Your task to perform on an android device: open app "Move to iOS" (install if not already installed) and go to login screen Image 0: 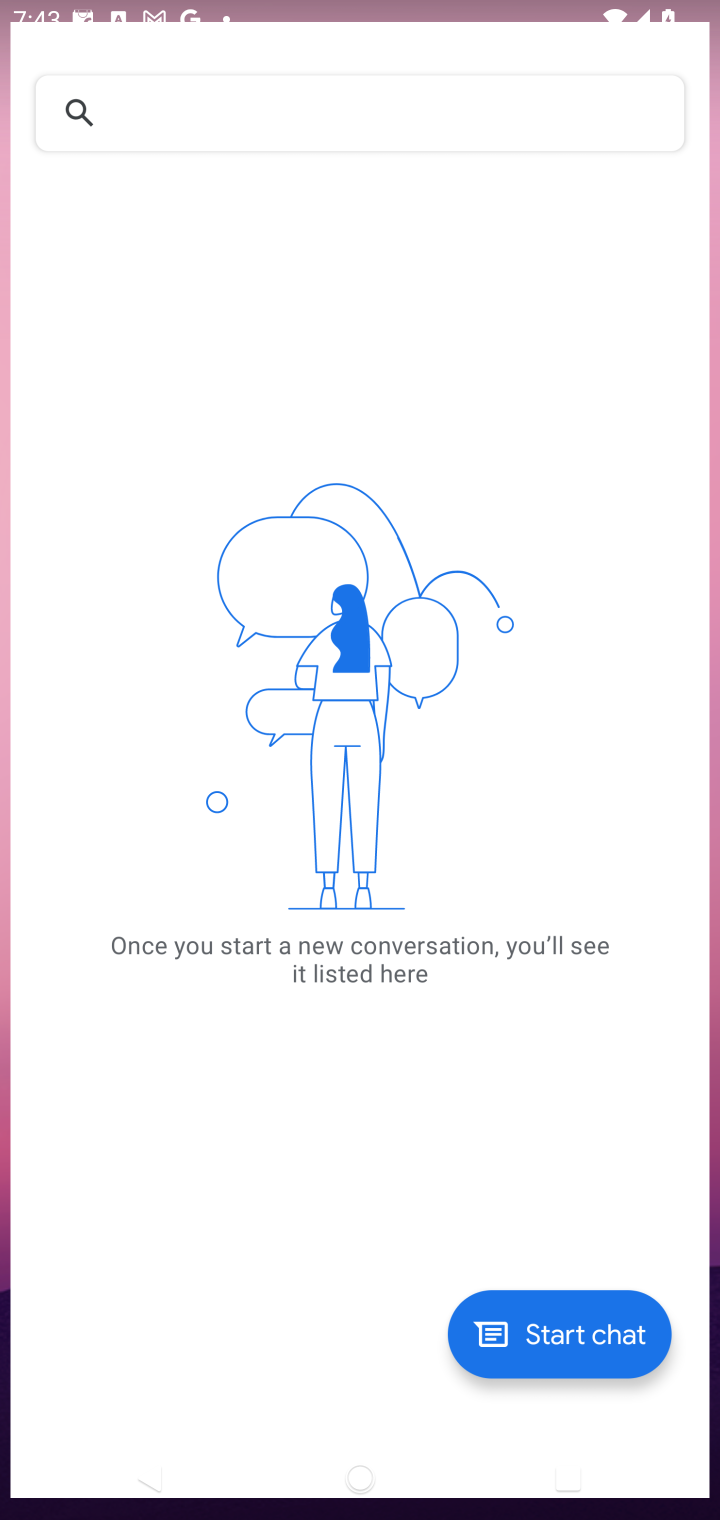
Step 0: press back button
Your task to perform on an android device: open app "Move to iOS" (install if not already installed) and go to login screen Image 1: 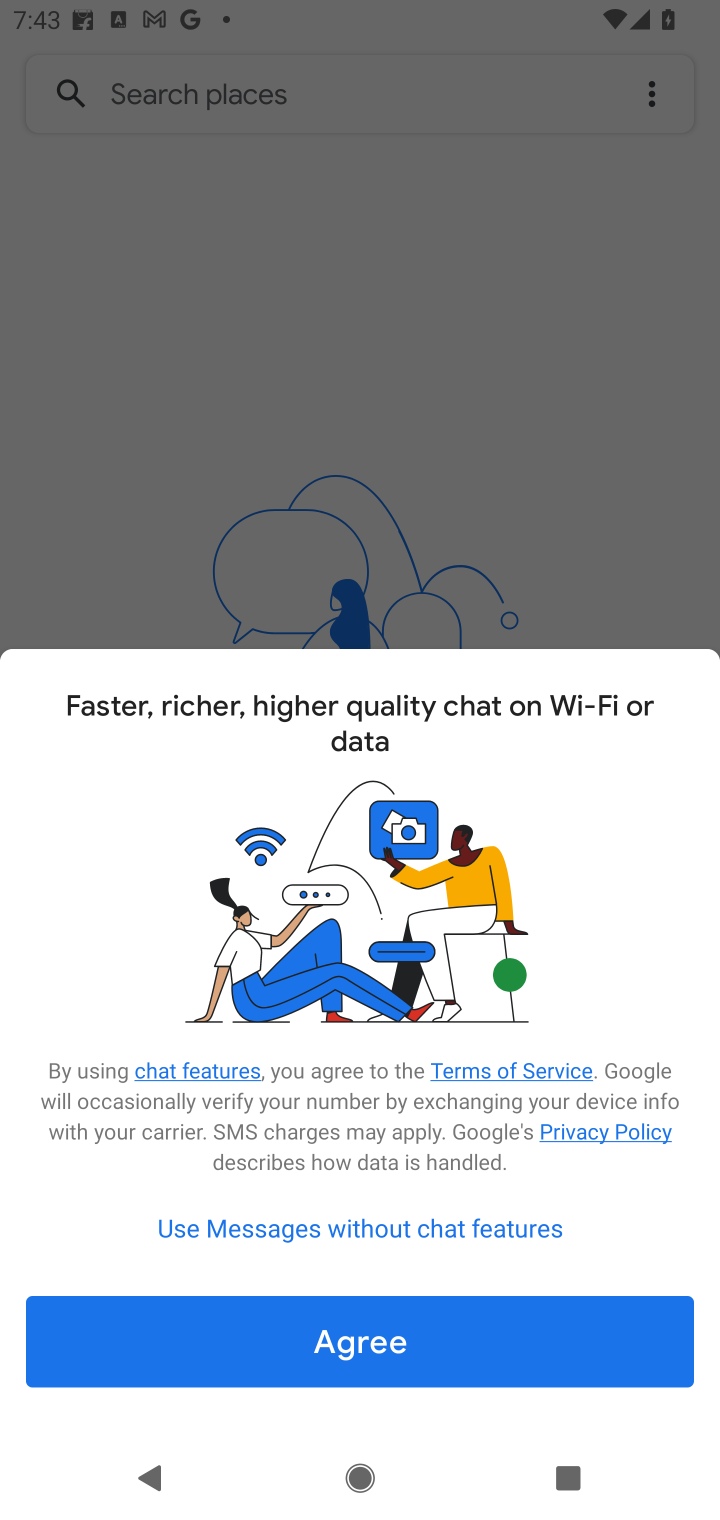
Step 1: press home button
Your task to perform on an android device: open app "Move to iOS" (install if not already installed) and go to login screen Image 2: 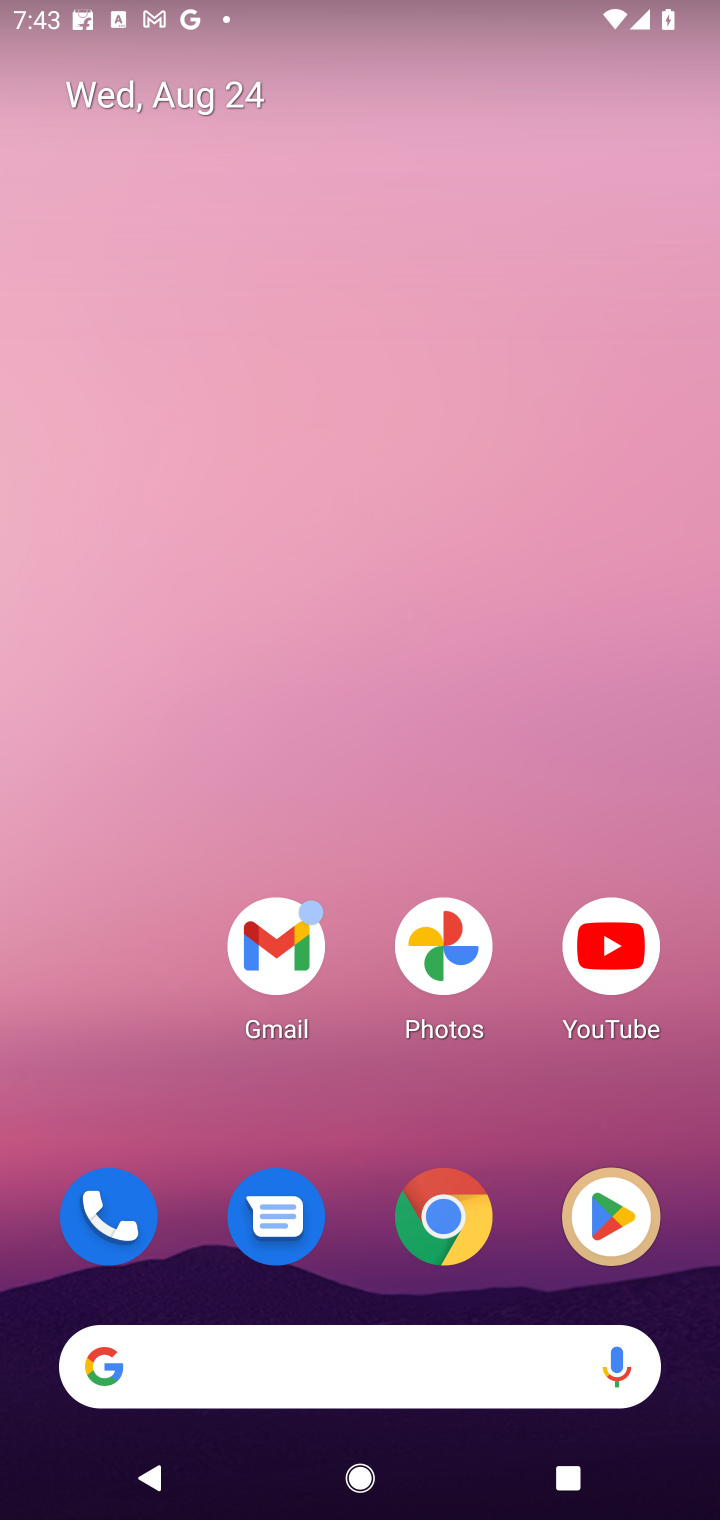
Step 2: click (553, 1177)
Your task to perform on an android device: open app "Move to iOS" (install if not already installed) and go to login screen Image 3: 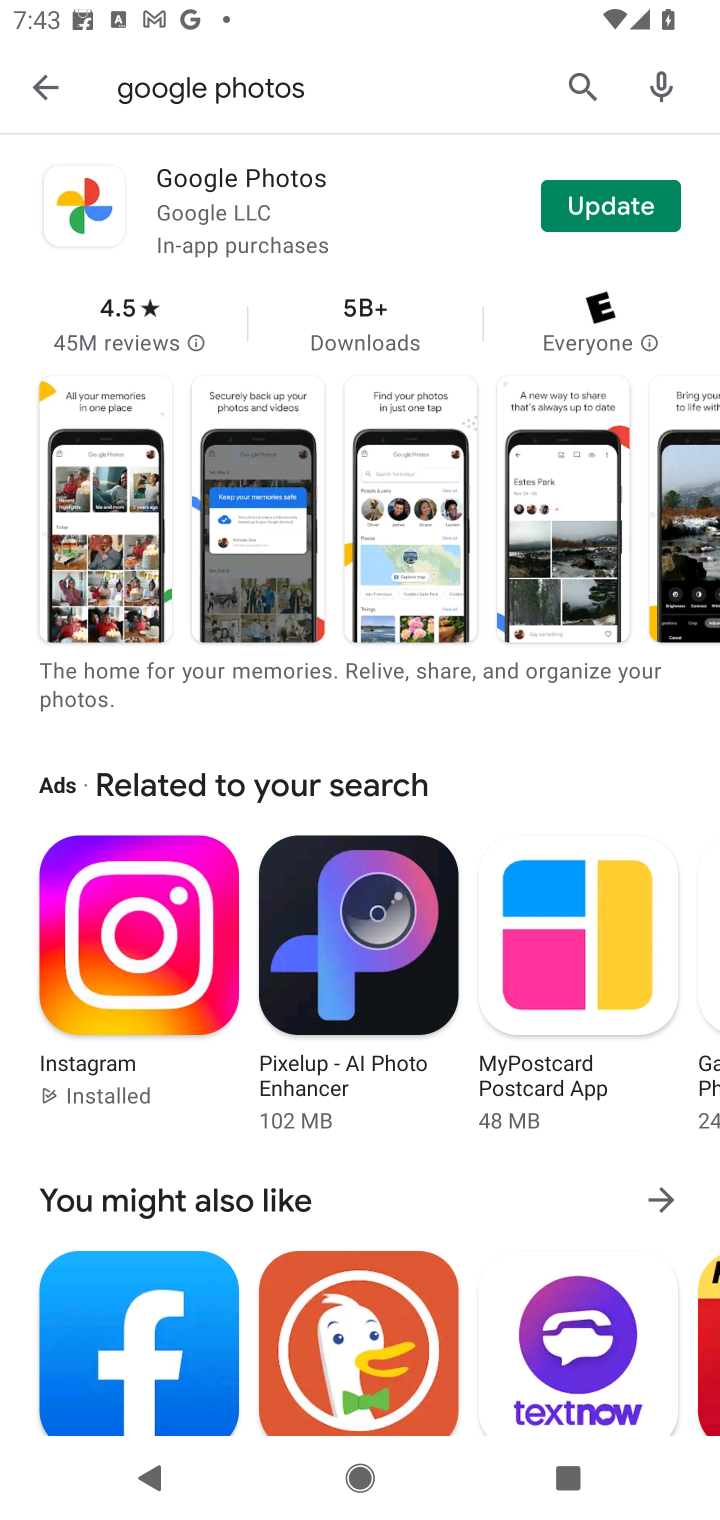
Step 3: click (590, 86)
Your task to perform on an android device: open app "Move to iOS" (install if not already installed) and go to login screen Image 4: 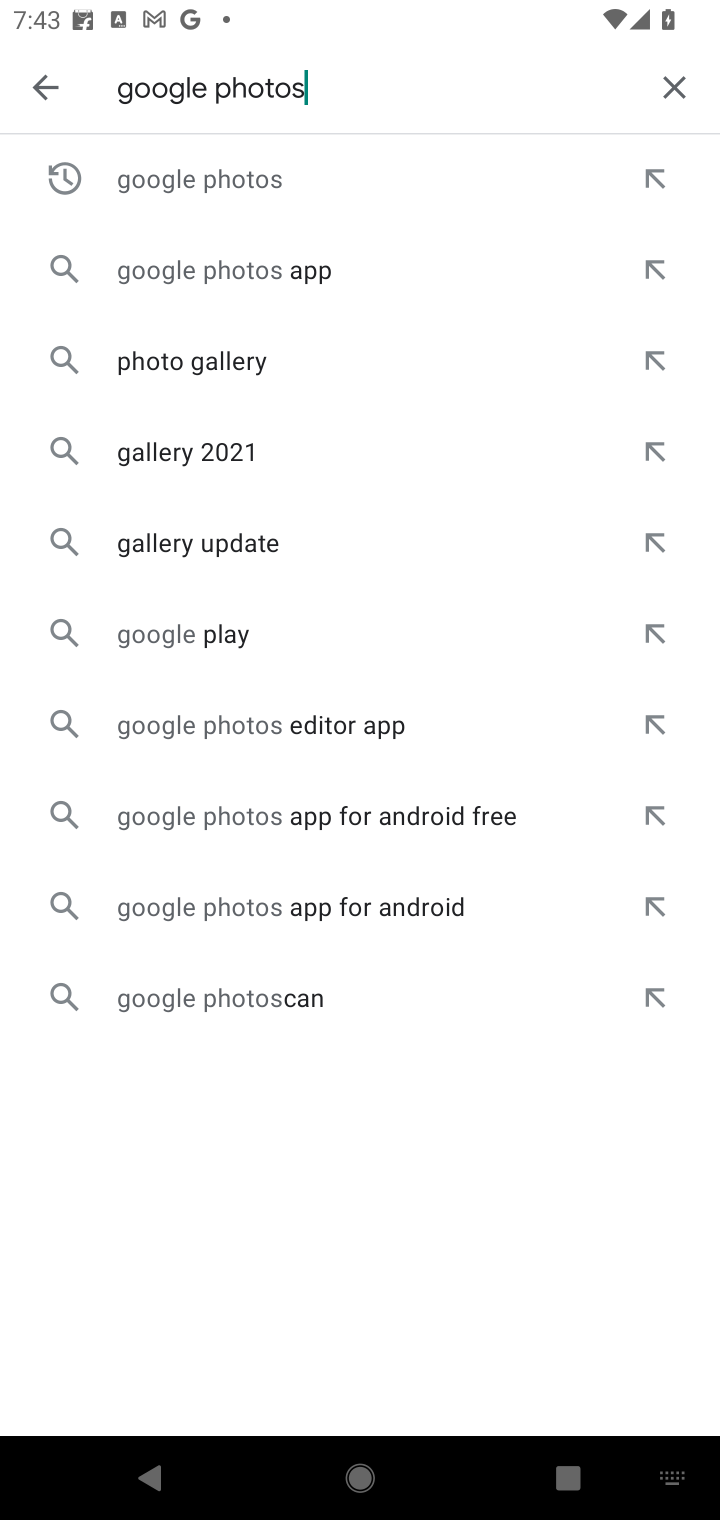
Step 4: click (673, 80)
Your task to perform on an android device: open app "Move to iOS" (install if not already installed) and go to login screen Image 5: 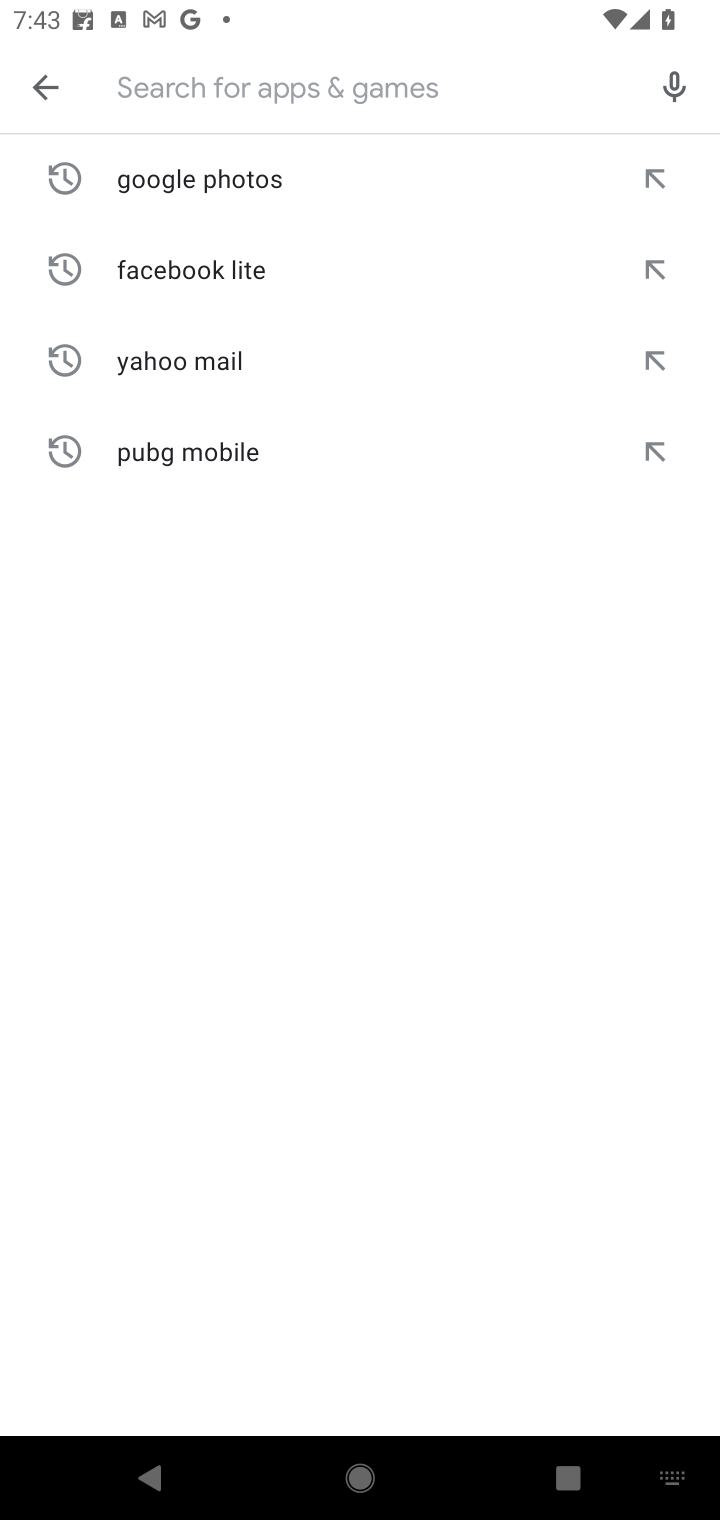
Step 5: type "Move to iOS"
Your task to perform on an android device: open app "Move to iOS" (install if not already installed) and go to login screen Image 6: 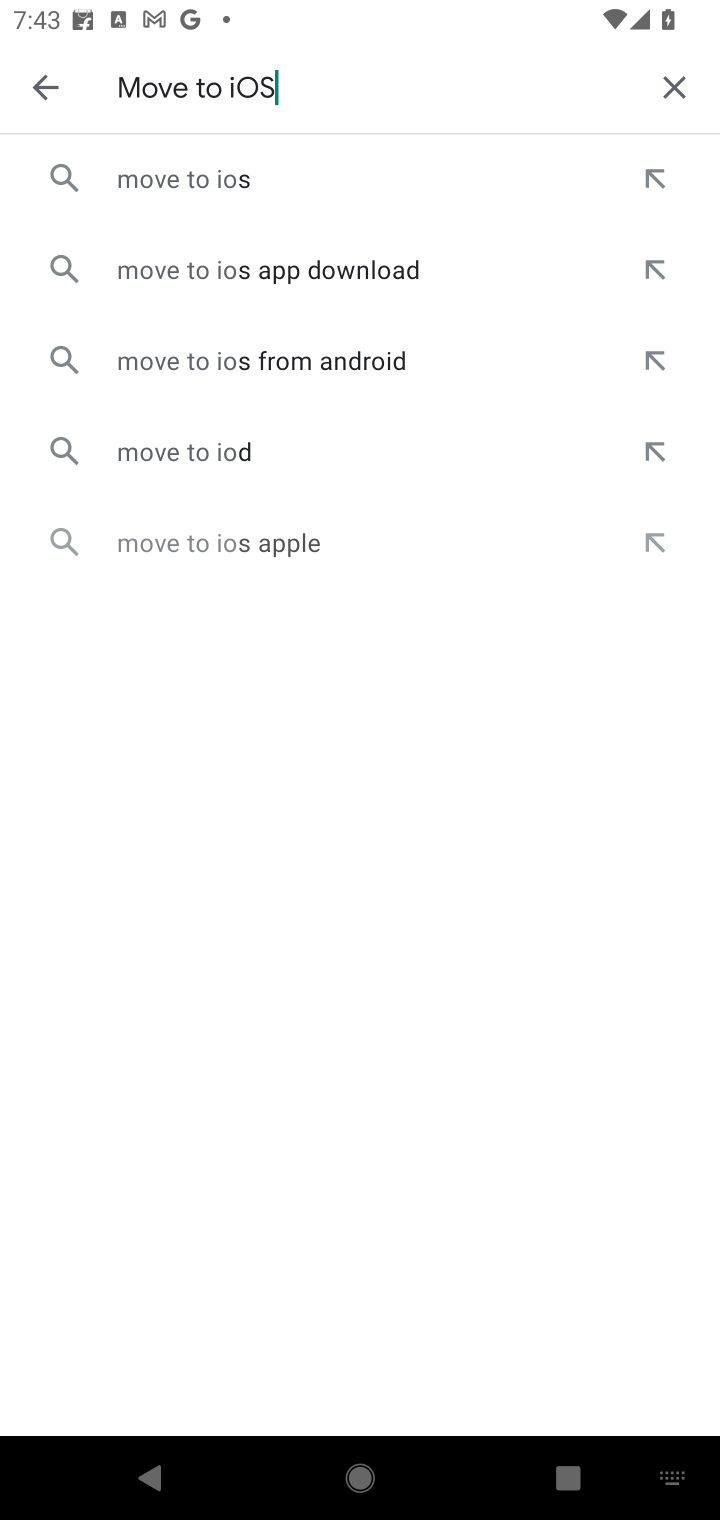
Step 6: type ""
Your task to perform on an android device: open app "Move to iOS" (install if not already installed) and go to login screen Image 7: 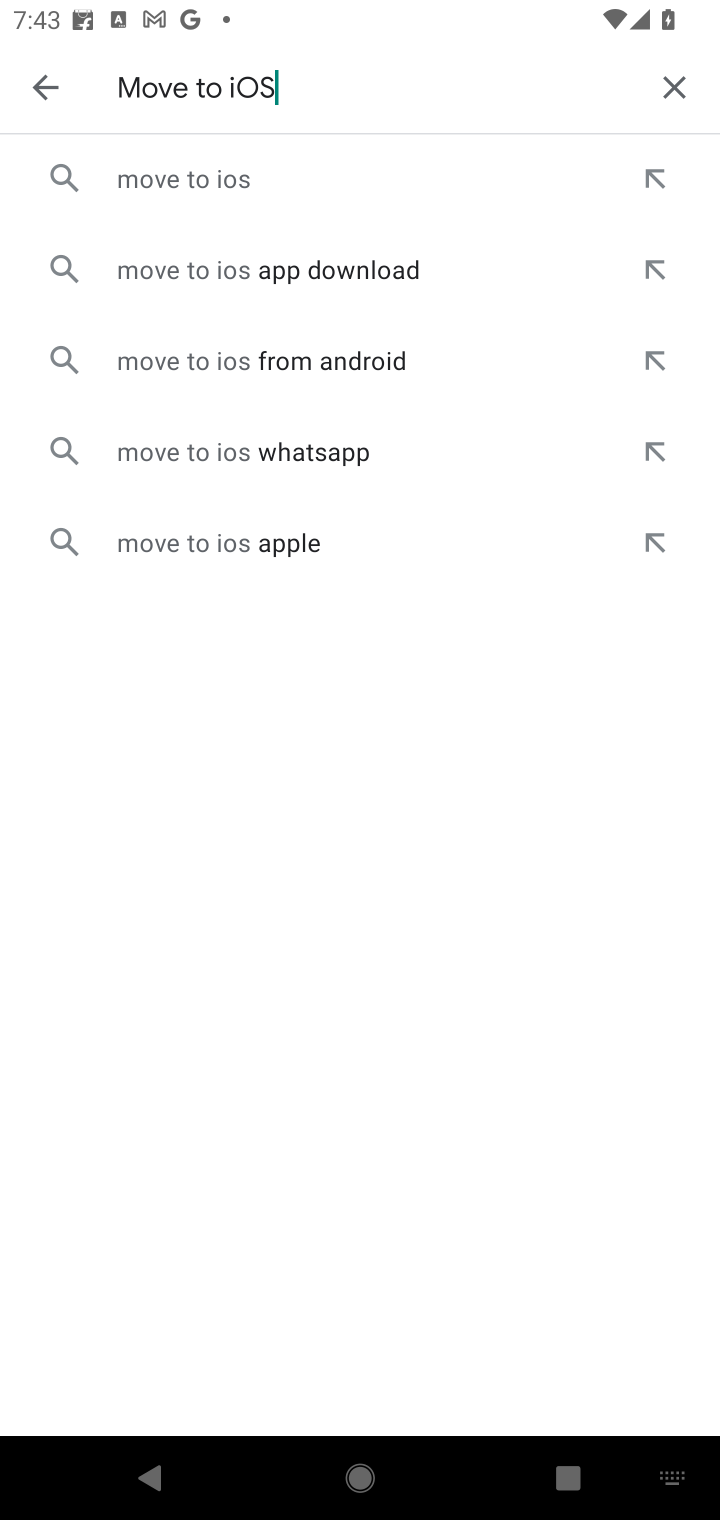
Step 7: click (235, 154)
Your task to perform on an android device: open app "Move to iOS" (install if not already installed) and go to login screen Image 8: 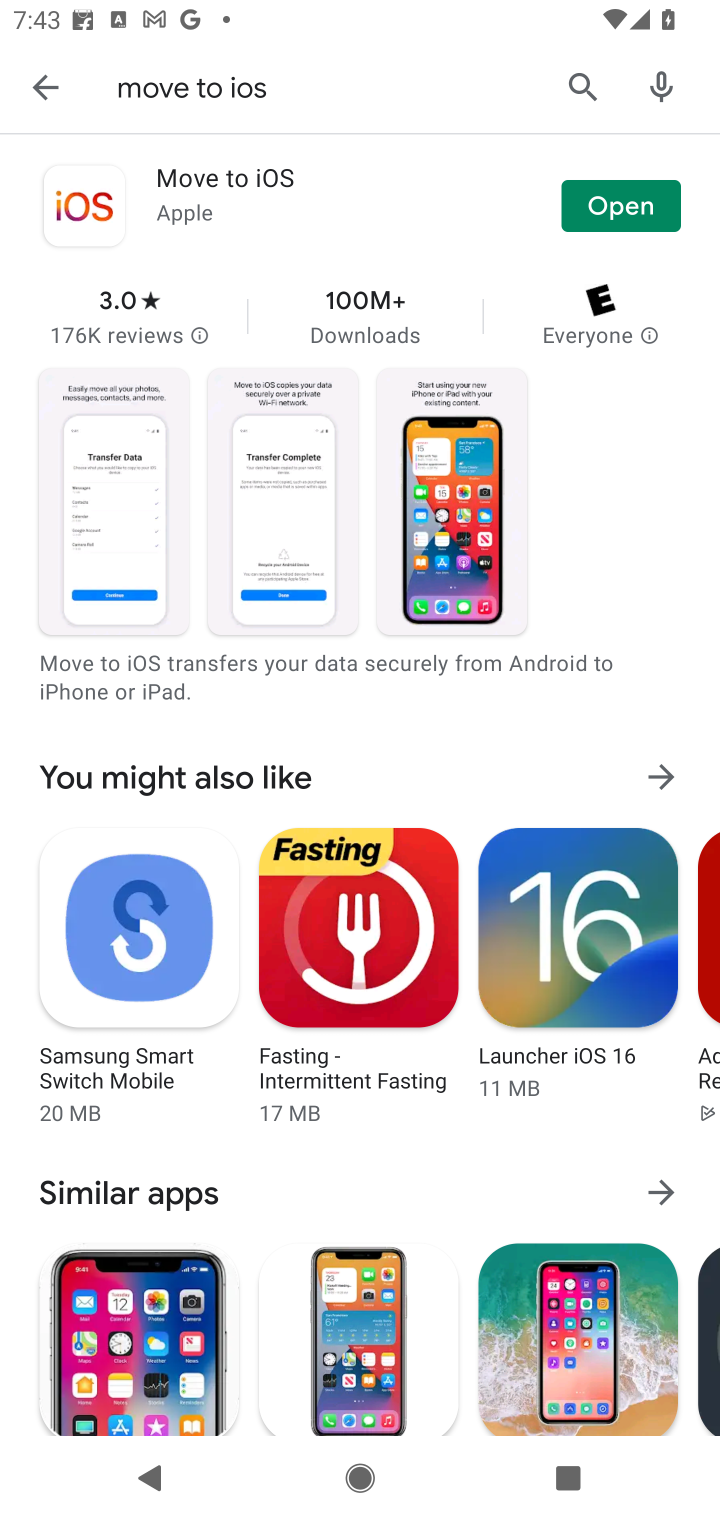
Step 8: click (647, 224)
Your task to perform on an android device: open app "Move to iOS" (install if not already installed) and go to login screen Image 9: 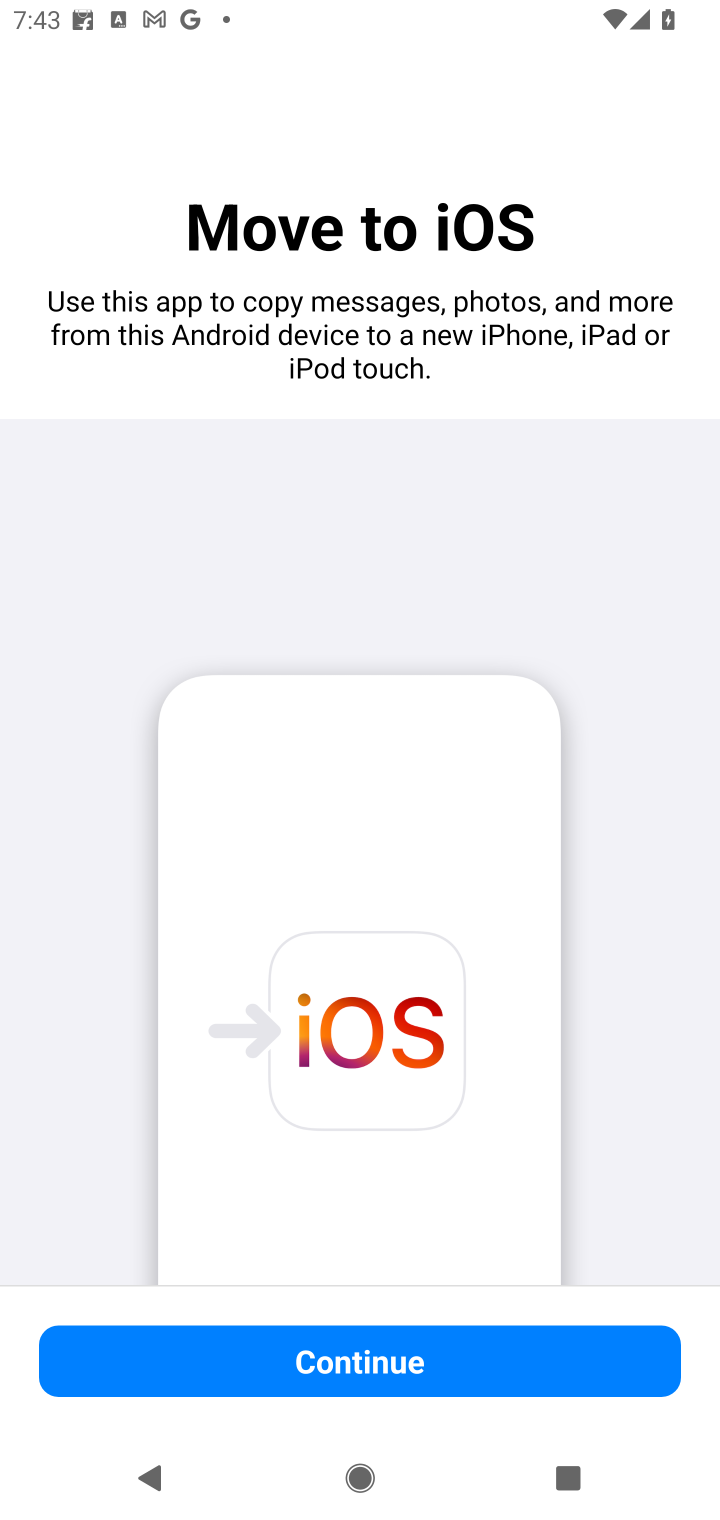
Step 9: task complete